Your task to perform on an android device: turn on notifications settings in the gmail app Image 0: 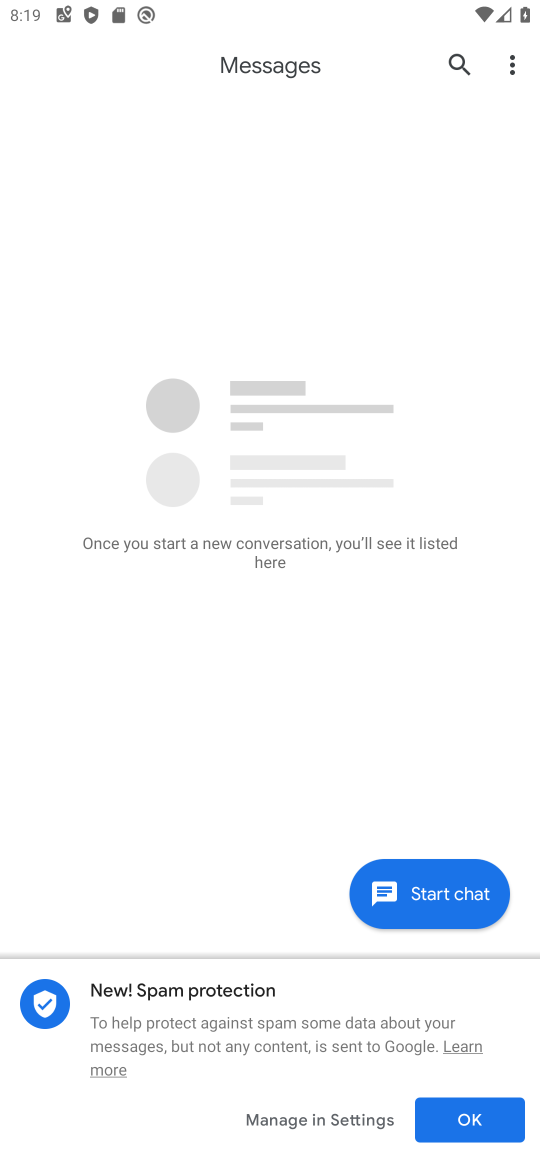
Step 0: press home button
Your task to perform on an android device: turn on notifications settings in the gmail app Image 1: 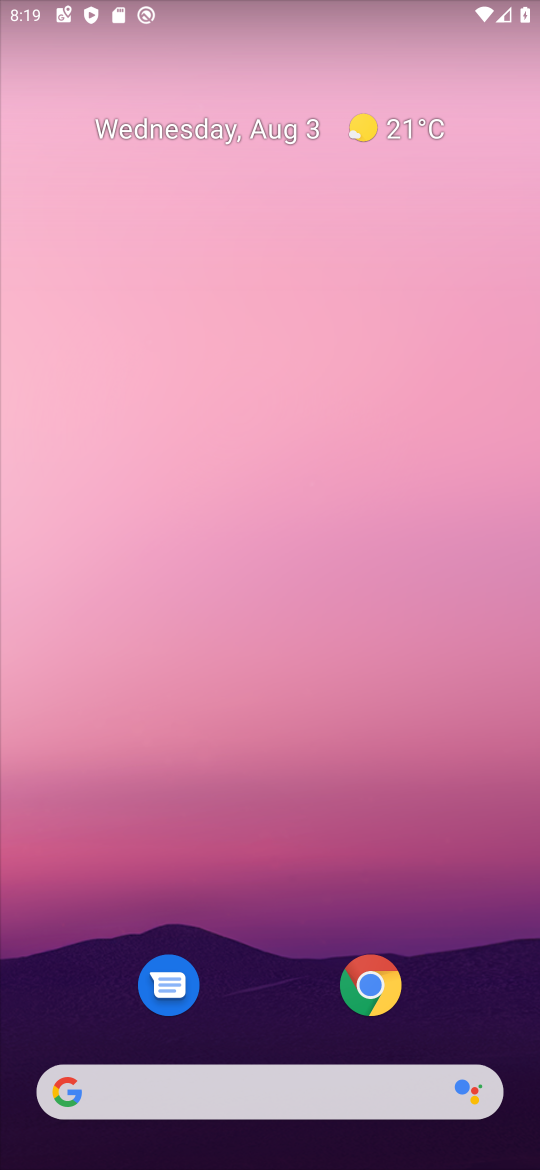
Step 1: drag from (248, 971) to (181, 232)
Your task to perform on an android device: turn on notifications settings in the gmail app Image 2: 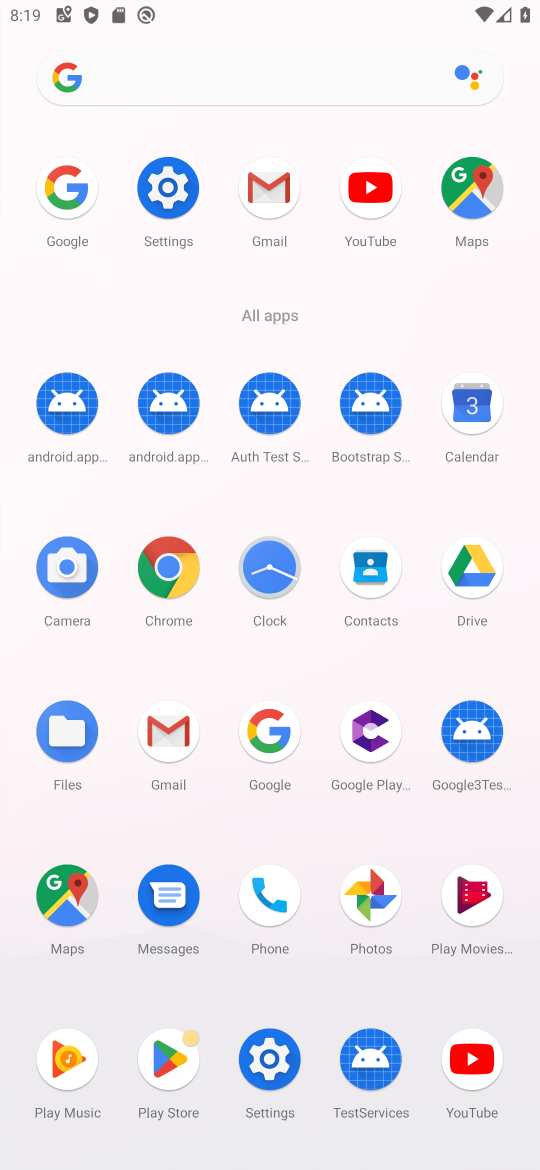
Step 2: click (284, 175)
Your task to perform on an android device: turn on notifications settings in the gmail app Image 3: 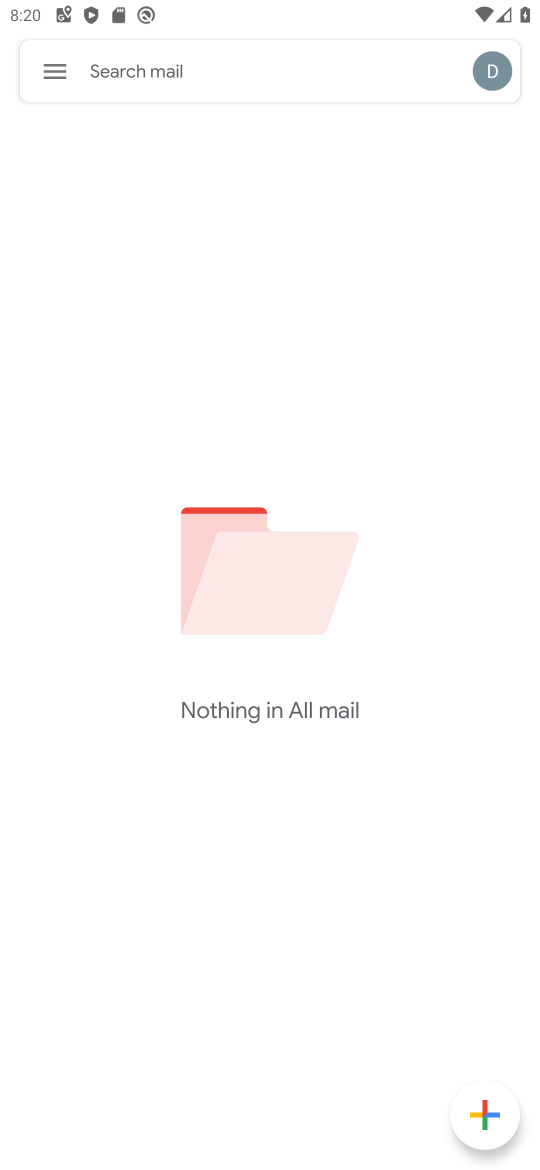
Step 3: click (66, 57)
Your task to perform on an android device: turn on notifications settings in the gmail app Image 4: 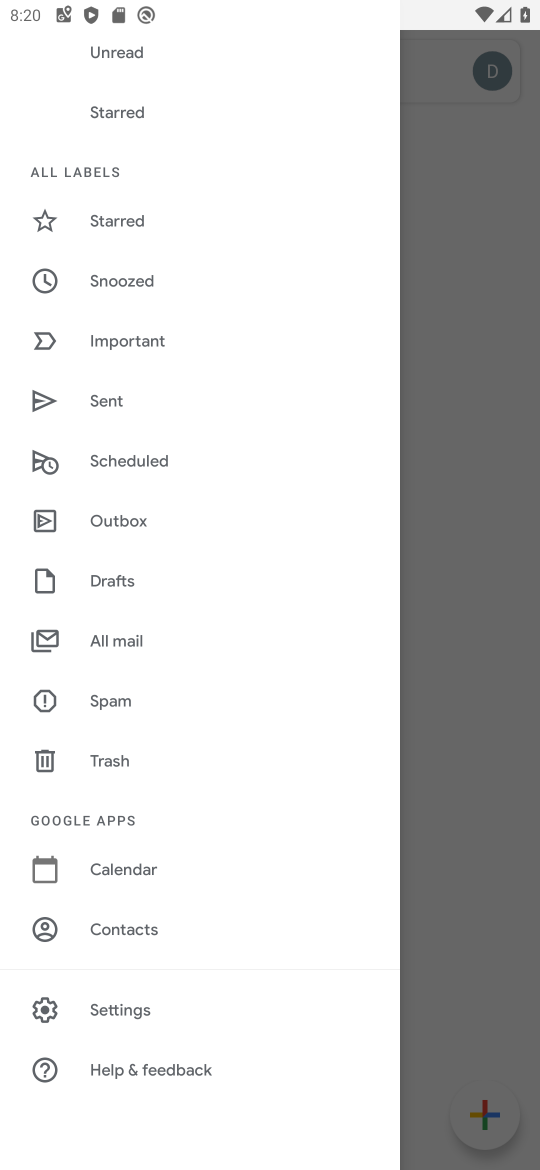
Step 4: click (150, 1022)
Your task to perform on an android device: turn on notifications settings in the gmail app Image 5: 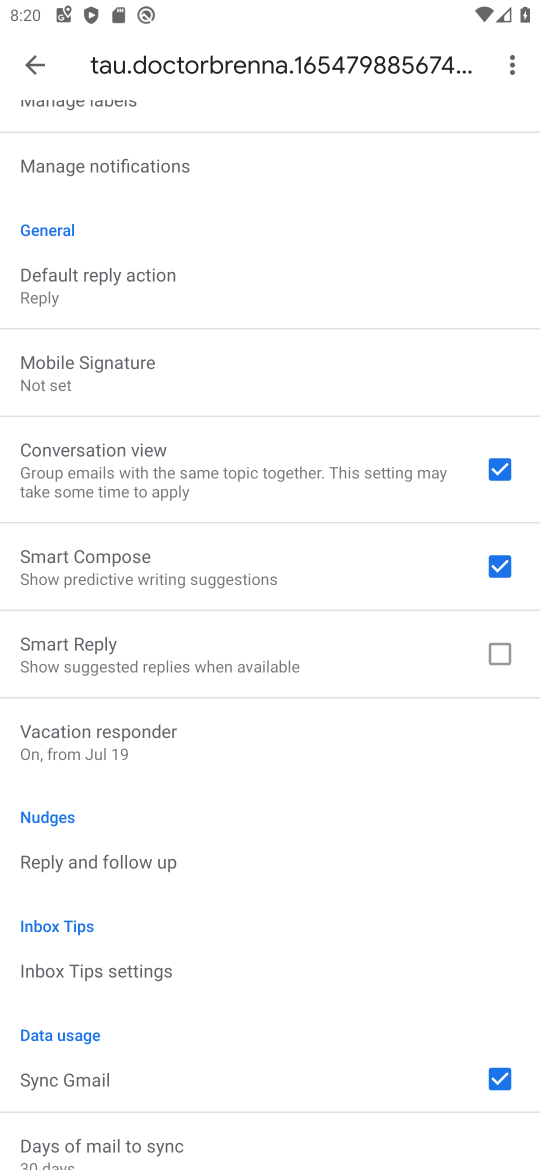
Step 5: drag from (216, 347) to (222, 715)
Your task to perform on an android device: turn on notifications settings in the gmail app Image 6: 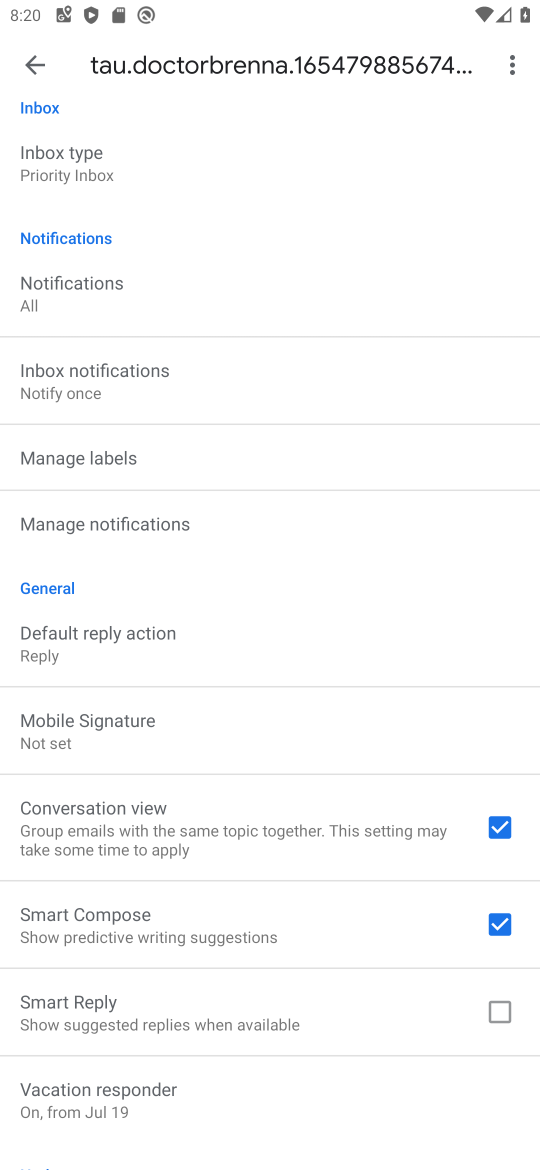
Step 6: click (186, 521)
Your task to perform on an android device: turn on notifications settings in the gmail app Image 7: 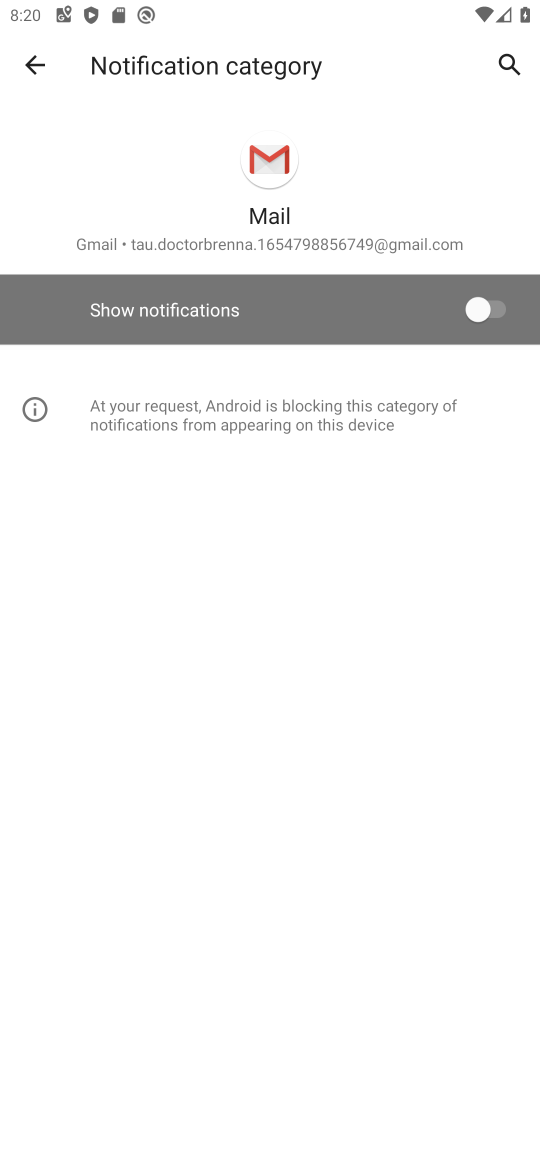
Step 7: click (486, 298)
Your task to perform on an android device: turn on notifications settings in the gmail app Image 8: 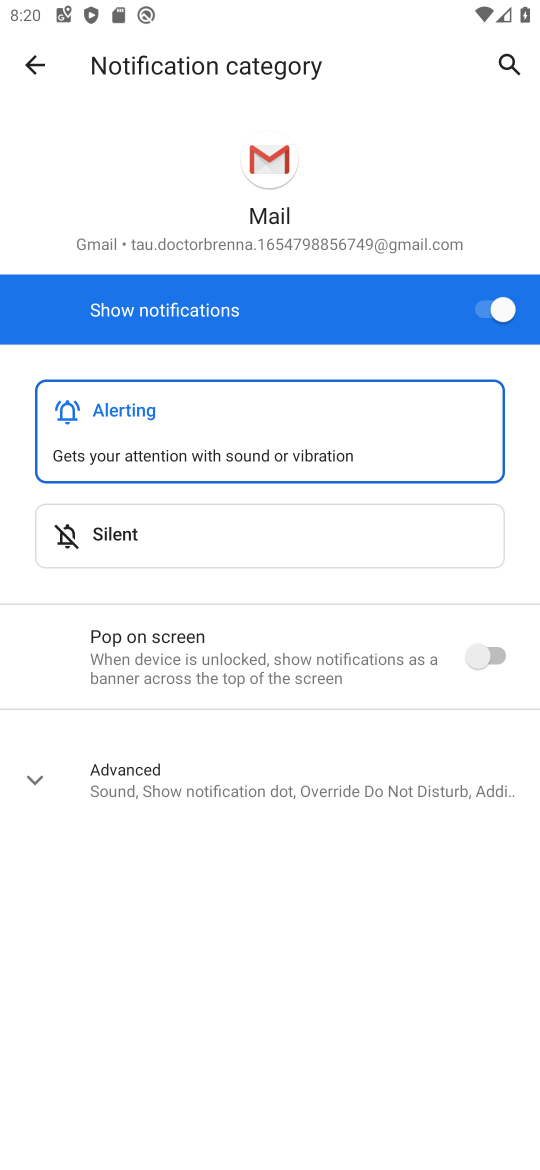
Step 8: task complete